Your task to perform on an android device: change notifications settings Image 0: 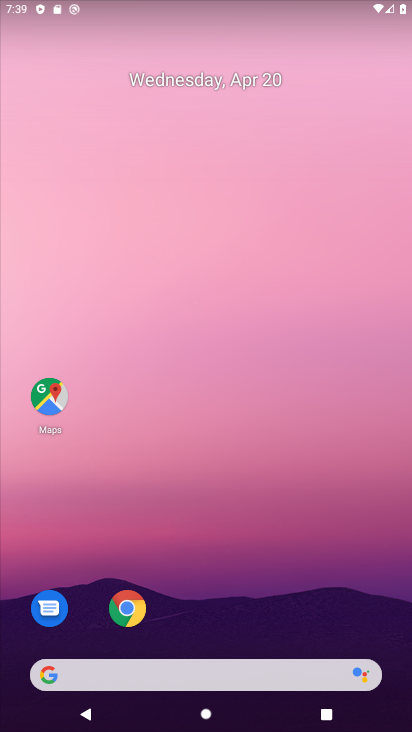
Step 0: drag from (220, 607) to (287, 128)
Your task to perform on an android device: change notifications settings Image 1: 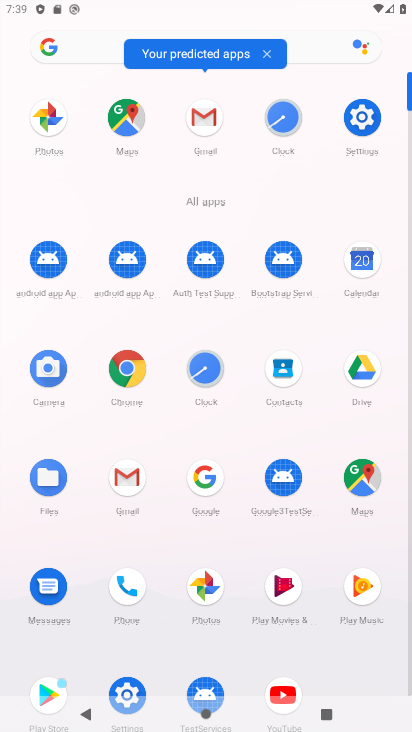
Step 1: click (304, 150)
Your task to perform on an android device: change notifications settings Image 2: 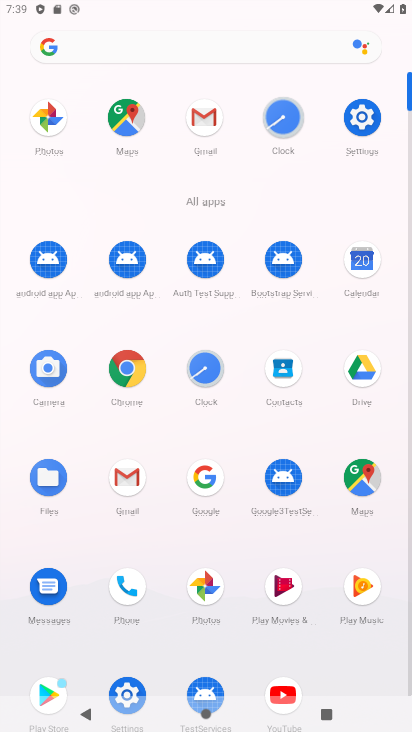
Step 2: click (354, 113)
Your task to perform on an android device: change notifications settings Image 3: 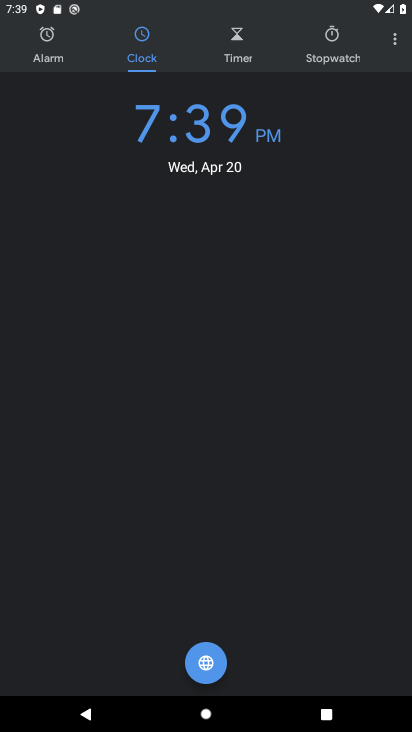
Step 3: press home button
Your task to perform on an android device: change notifications settings Image 4: 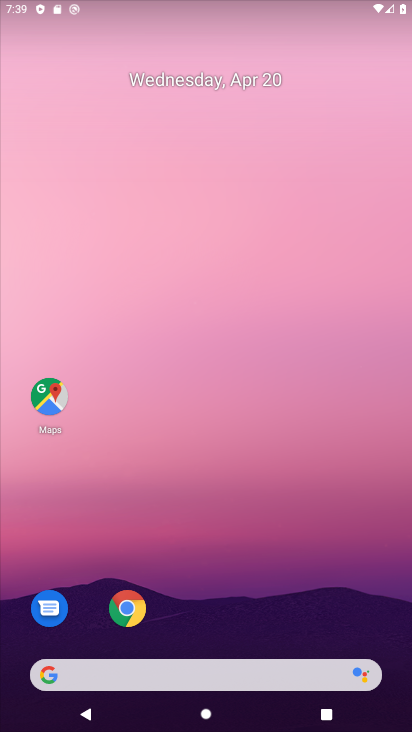
Step 4: drag from (299, 621) to (332, 129)
Your task to perform on an android device: change notifications settings Image 5: 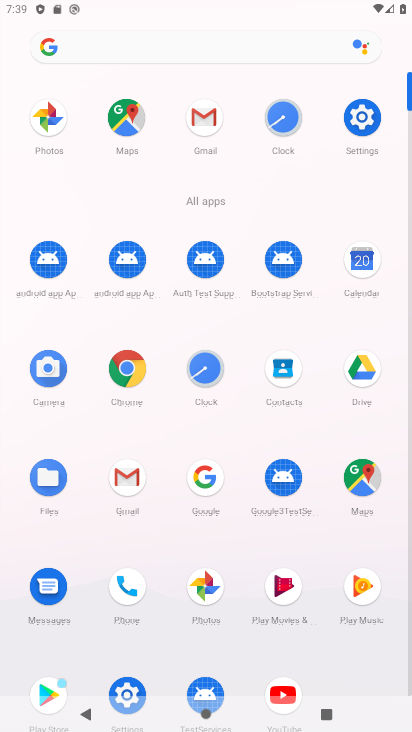
Step 5: click (359, 109)
Your task to perform on an android device: change notifications settings Image 6: 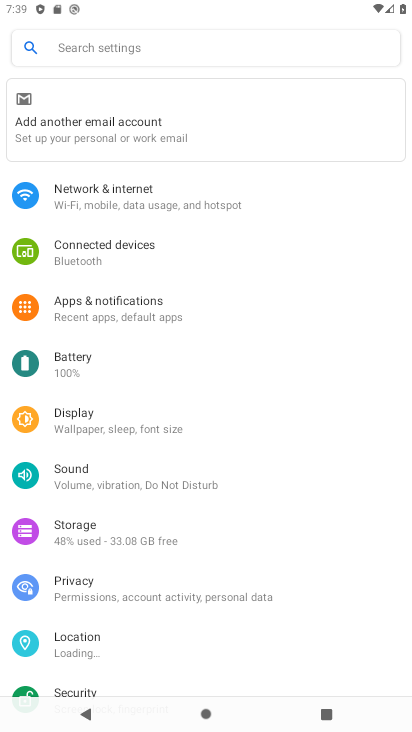
Step 6: click (138, 312)
Your task to perform on an android device: change notifications settings Image 7: 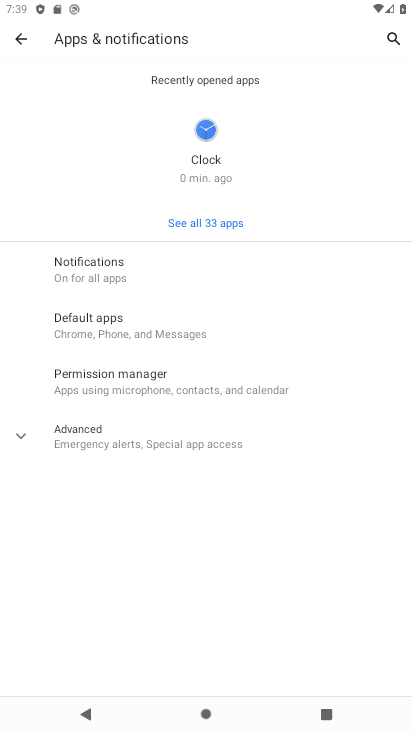
Step 7: click (148, 253)
Your task to perform on an android device: change notifications settings Image 8: 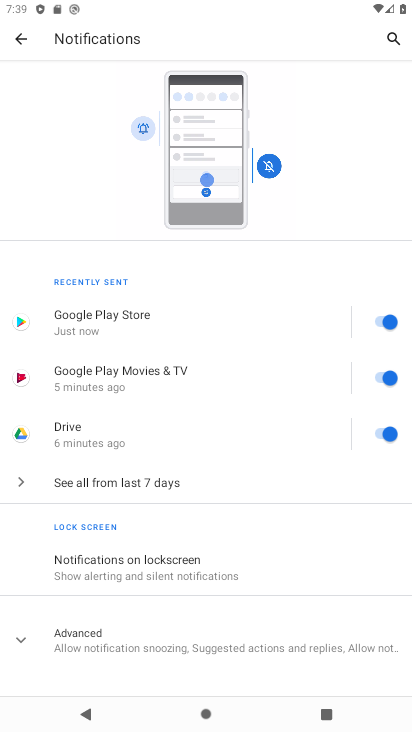
Step 8: click (140, 557)
Your task to perform on an android device: change notifications settings Image 9: 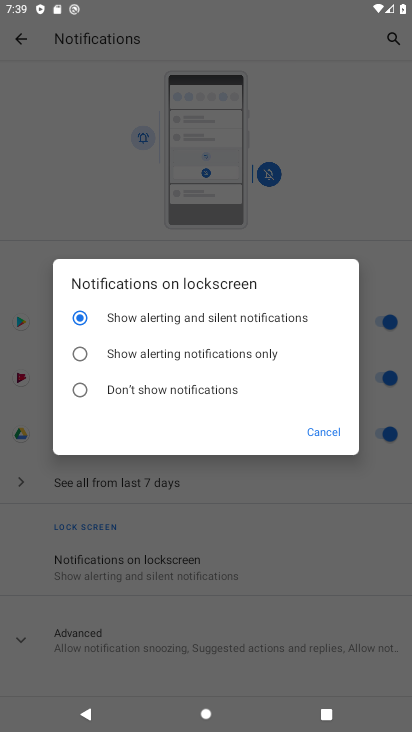
Step 9: click (319, 429)
Your task to perform on an android device: change notifications settings Image 10: 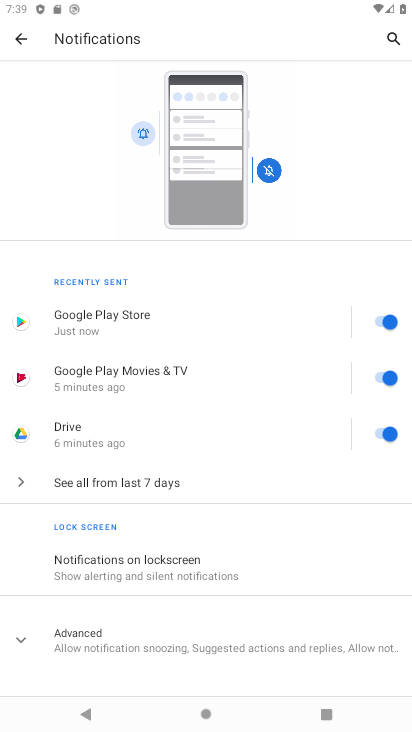
Step 10: click (319, 429)
Your task to perform on an android device: change notifications settings Image 11: 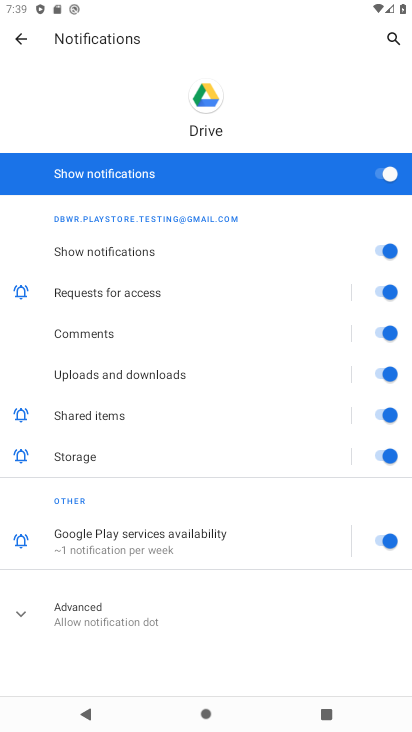
Step 11: press back button
Your task to perform on an android device: change notifications settings Image 12: 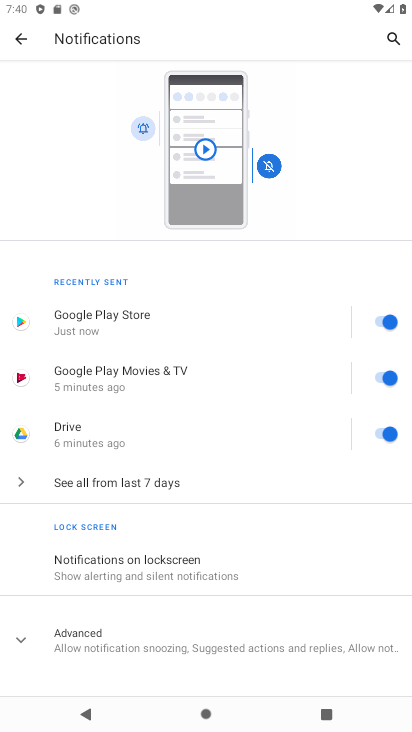
Step 12: press back button
Your task to perform on an android device: change notifications settings Image 13: 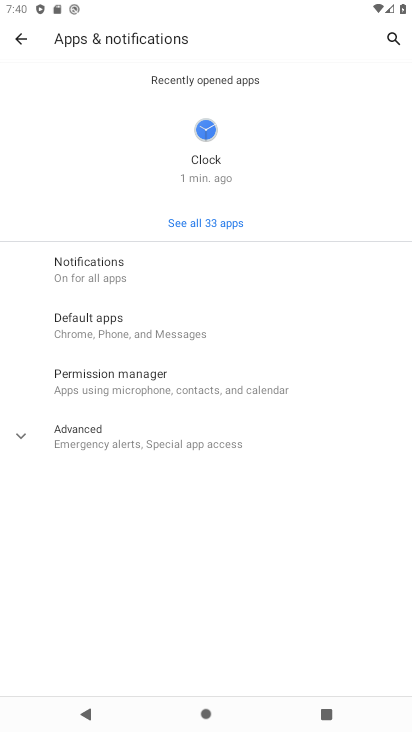
Step 13: click (132, 277)
Your task to perform on an android device: change notifications settings Image 14: 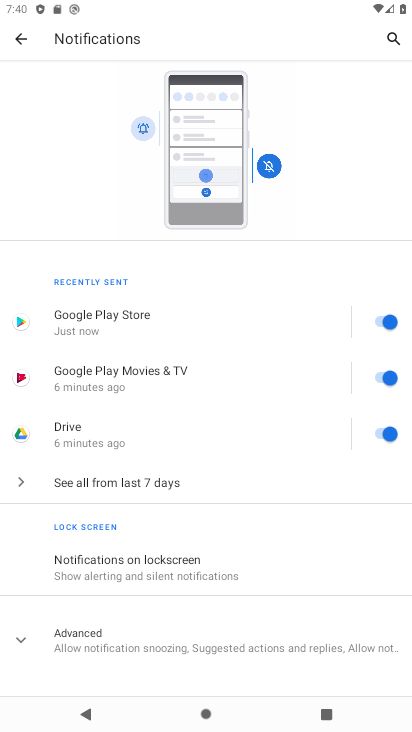
Step 14: click (106, 477)
Your task to perform on an android device: change notifications settings Image 15: 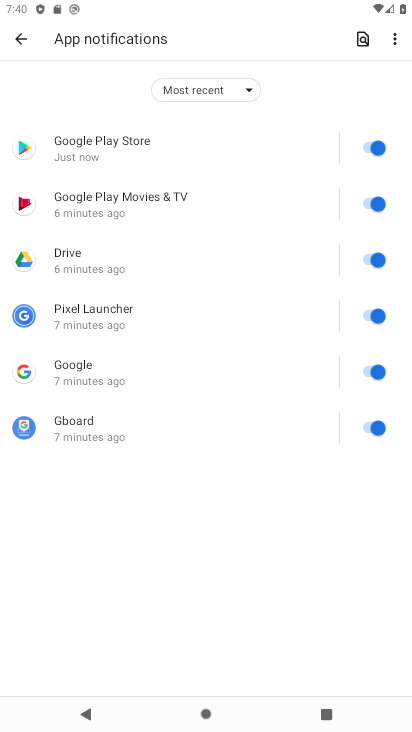
Step 15: click (360, 147)
Your task to perform on an android device: change notifications settings Image 16: 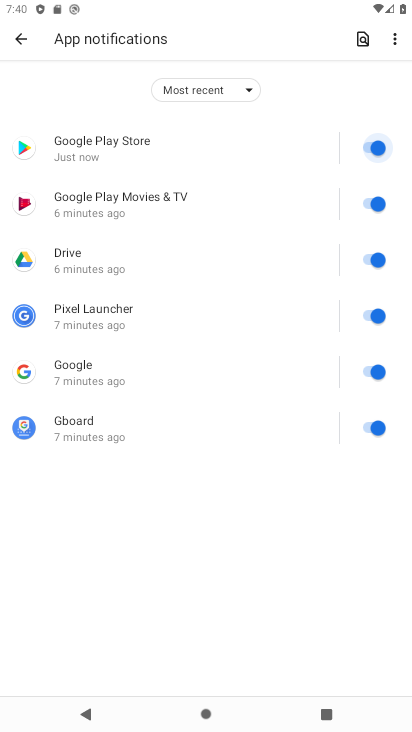
Step 16: click (361, 219)
Your task to perform on an android device: change notifications settings Image 17: 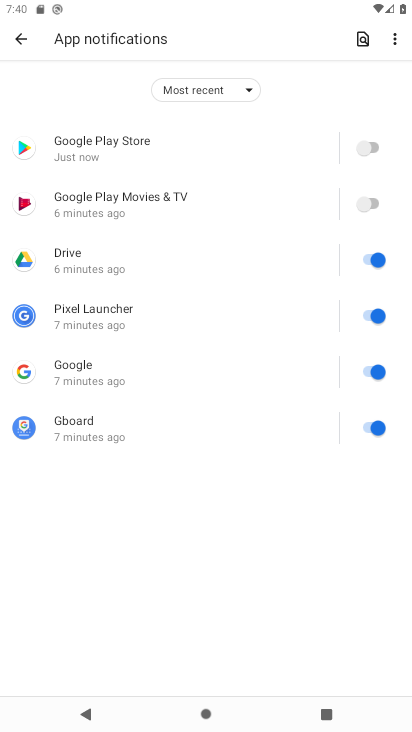
Step 17: click (368, 267)
Your task to perform on an android device: change notifications settings Image 18: 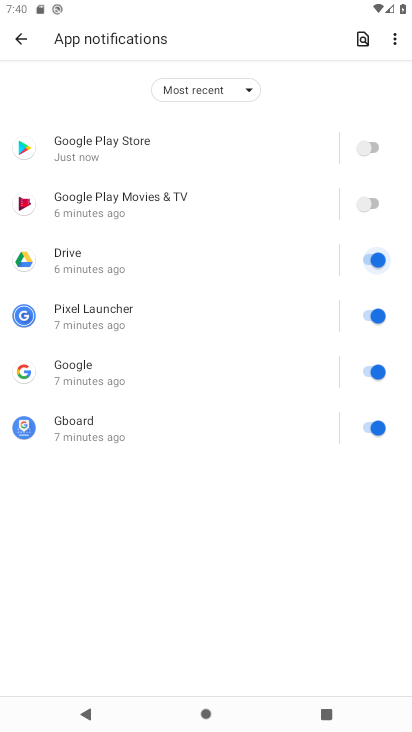
Step 18: click (376, 309)
Your task to perform on an android device: change notifications settings Image 19: 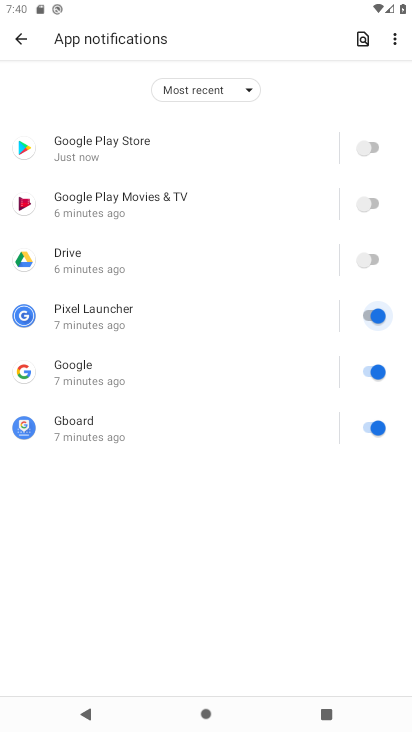
Step 19: click (353, 373)
Your task to perform on an android device: change notifications settings Image 20: 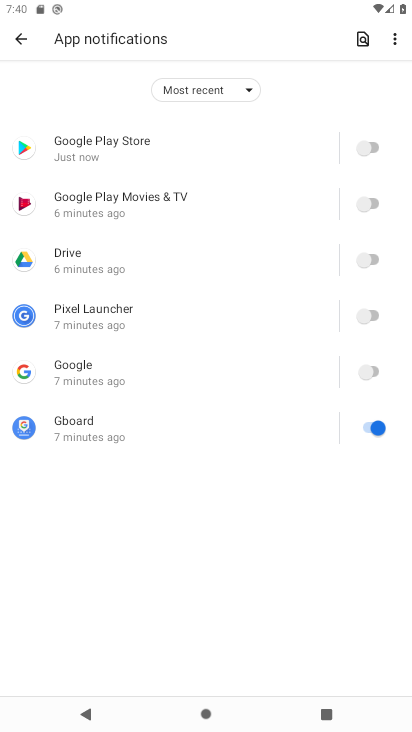
Step 20: click (369, 434)
Your task to perform on an android device: change notifications settings Image 21: 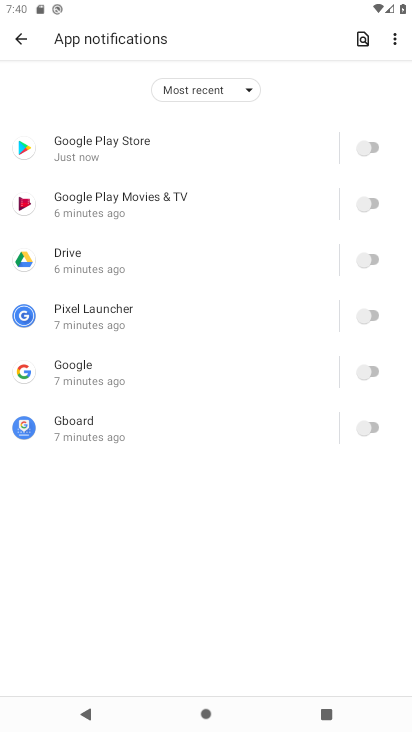
Step 21: task complete